Your task to perform on an android device: Go to calendar. Show me events next week Image 0: 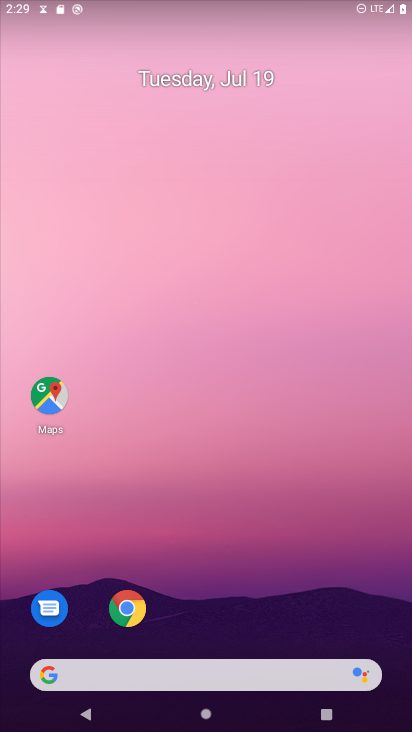
Step 0: click (185, 653)
Your task to perform on an android device: Go to calendar. Show me events next week Image 1: 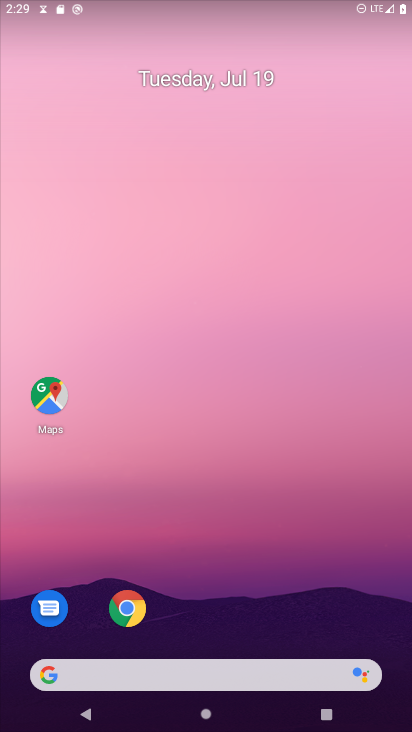
Step 1: drag from (177, 691) to (156, 127)
Your task to perform on an android device: Go to calendar. Show me events next week Image 2: 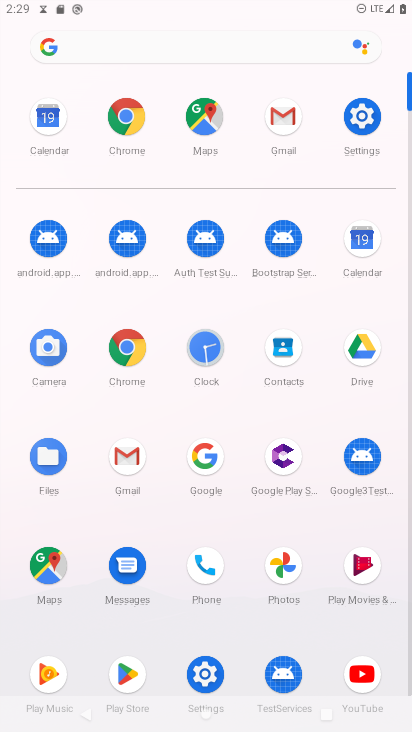
Step 2: click (366, 234)
Your task to perform on an android device: Go to calendar. Show me events next week Image 3: 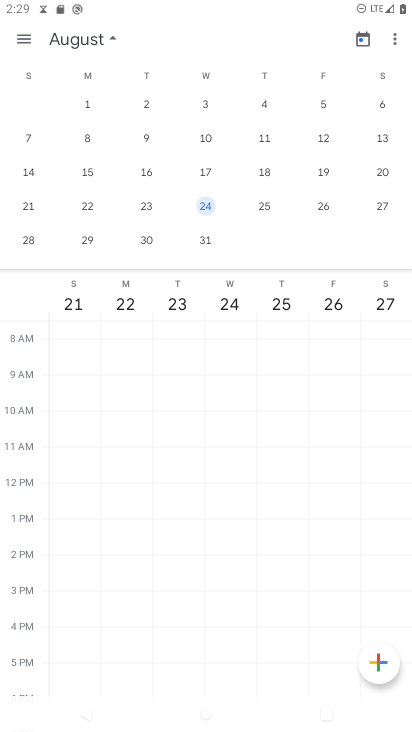
Step 3: drag from (32, 148) to (334, 211)
Your task to perform on an android device: Go to calendar. Show me events next week Image 4: 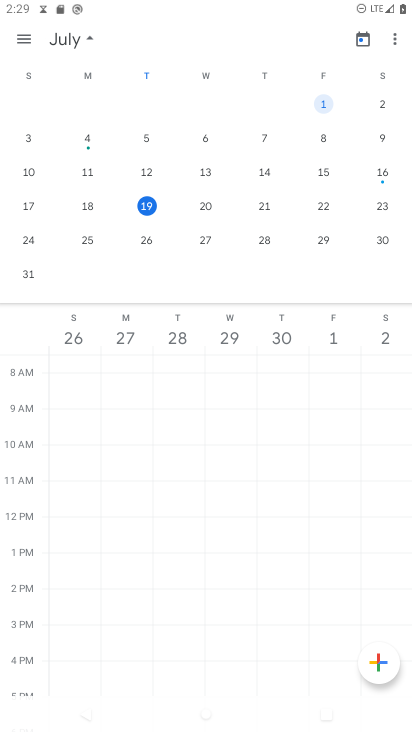
Step 4: click (206, 237)
Your task to perform on an android device: Go to calendar. Show me events next week Image 5: 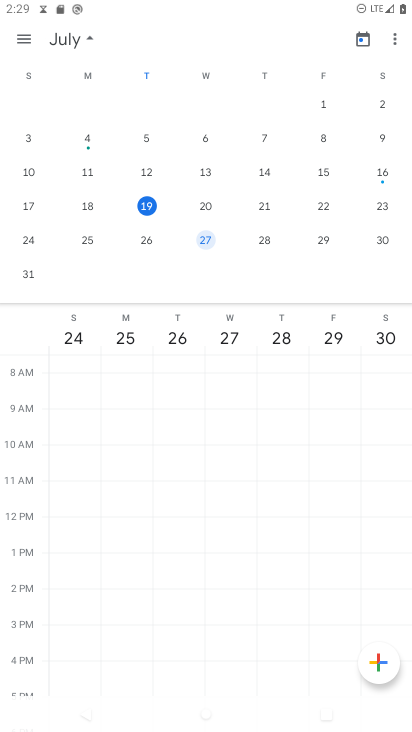
Step 5: task complete